Your task to perform on an android device: Open Chrome and go to the settings page Image 0: 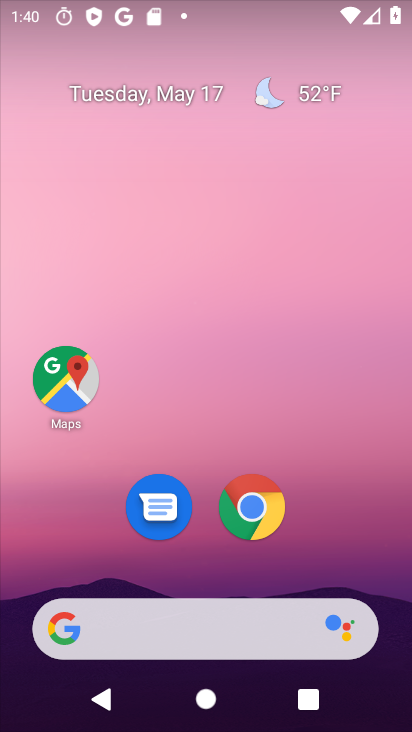
Step 0: click (256, 510)
Your task to perform on an android device: Open Chrome and go to the settings page Image 1: 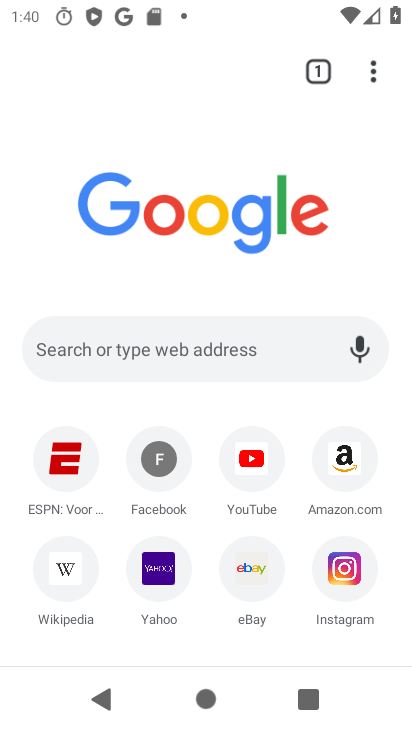
Step 1: click (366, 66)
Your task to perform on an android device: Open Chrome and go to the settings page Image 2: 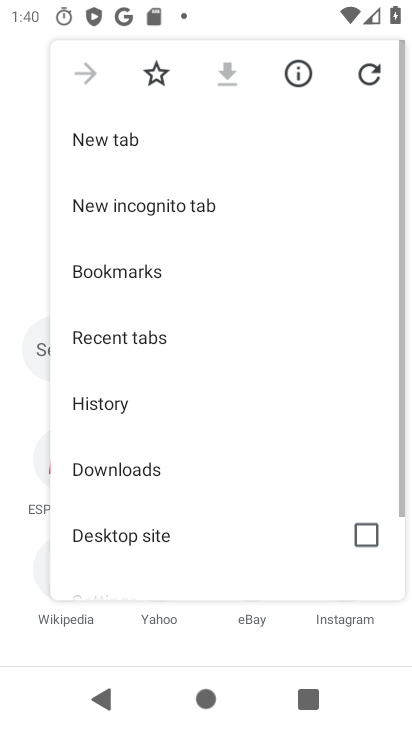
Step 2: drag from (142, 484) to (170, 228)
Your task to perform on an android device: Open Chrome and go to the settings page Image 3: 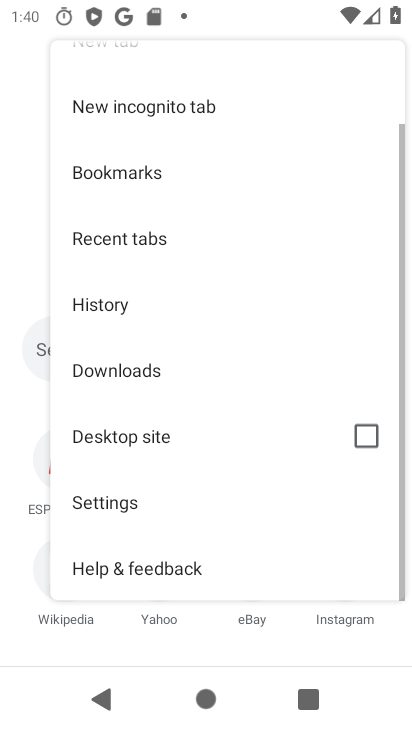
Step 3: click (116, 497)
Your task to perform on an android device: Open Chrome and go to the settings page Image 4: 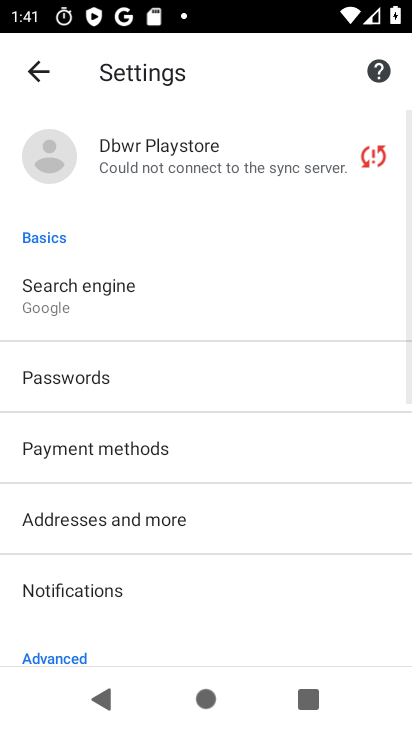
Step 4: task complete